Your task to perform on an android device: Open Maps and search for coffee Image 0: 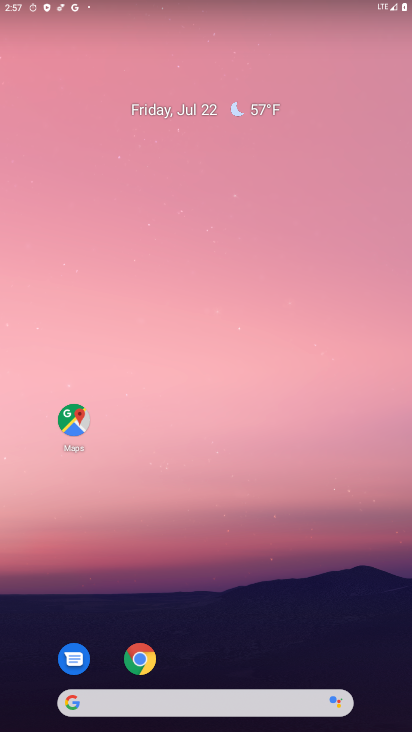
Step 0: click (66, 424)
Your task to perform on an android device: Open Maps and search for coffee Image 1: 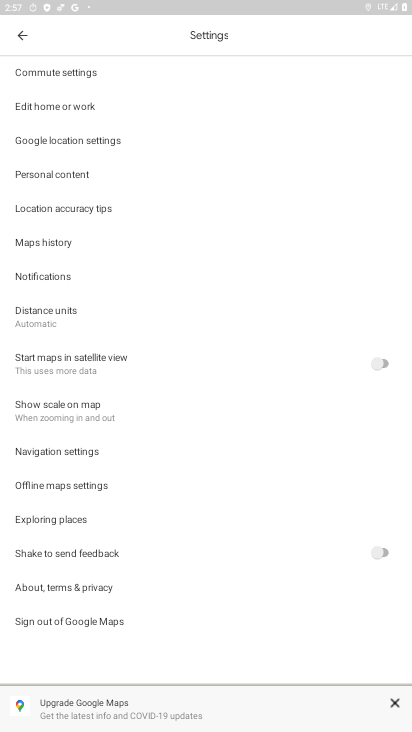
Step 1: click (23, 32)
Your task to perform on an android device: Open Maps and search for coffee Image 2: 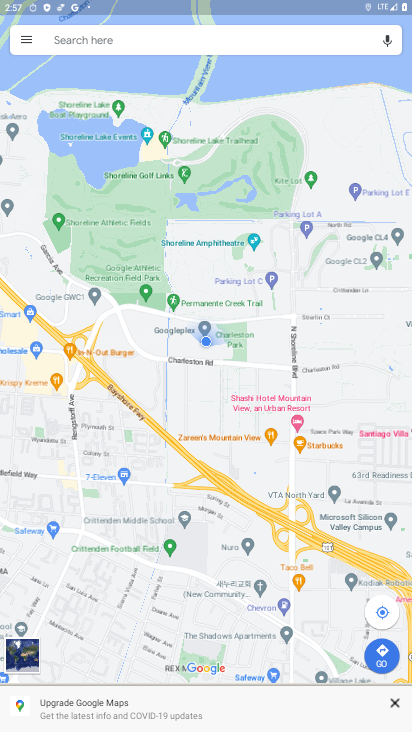
Step 2: click (176, 41)
Your task to perform on an android device: Open Maps and search for coffee Image 3: 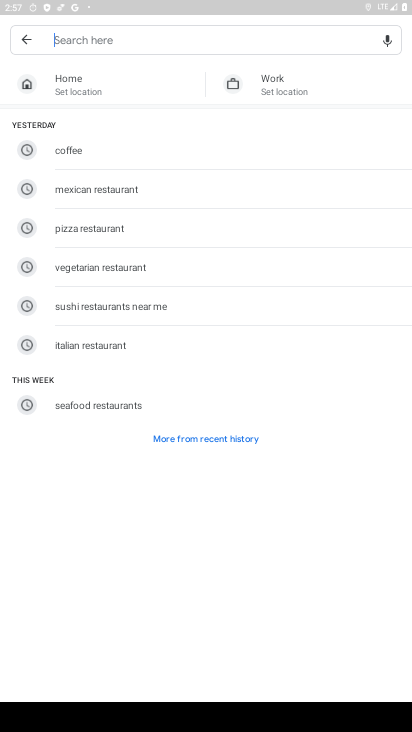
Step 3: type "coffee"
Your task to perform on an android device: Open Maps and search for coffee Image 4: 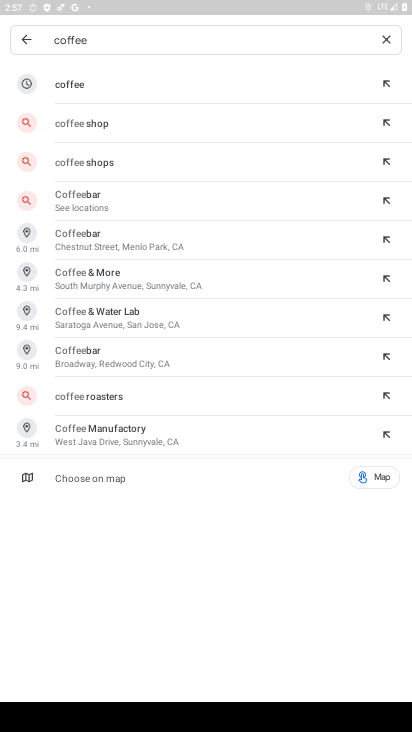
Step 4: click (153, 85)
Your task to perform on an android device: Open Maps and search for coffee Image 5: 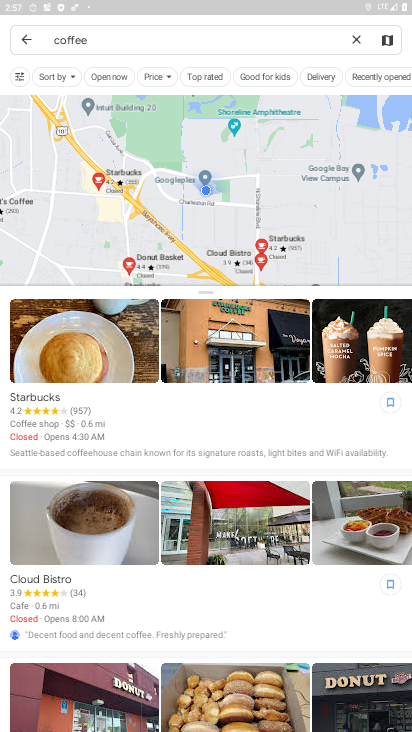
Step 5: task complete